Your task to perform on an android device: What's on my calendar today? Image 0: 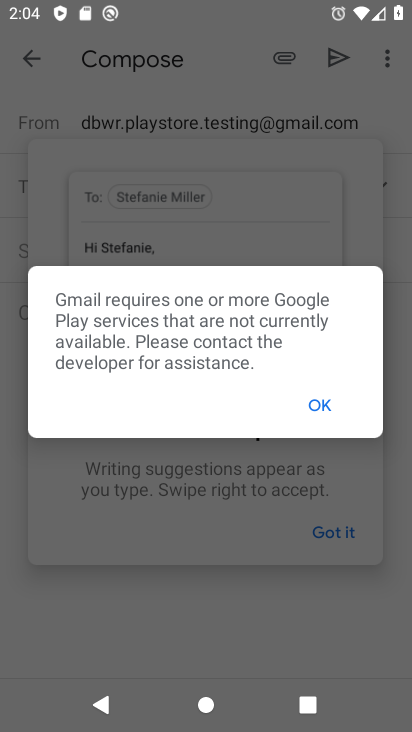
Step 0: press home button
Your task to perform on an android device: What's on my calendar today? Image 1: 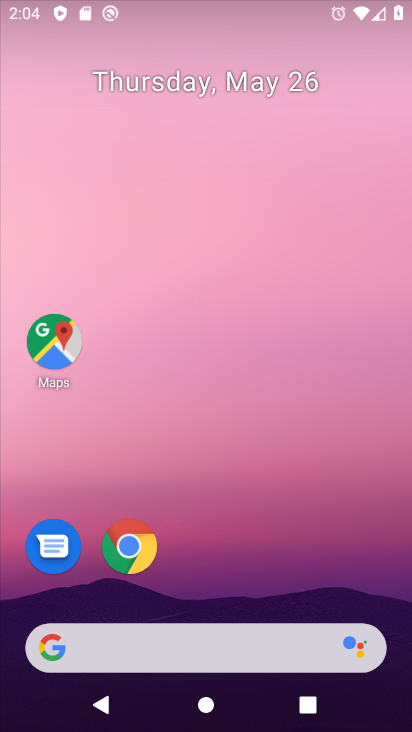
Step 1: drag from (290, 519) to (330, 53)
Your task to perform on an android device: What's on my calendar today? Image 2: 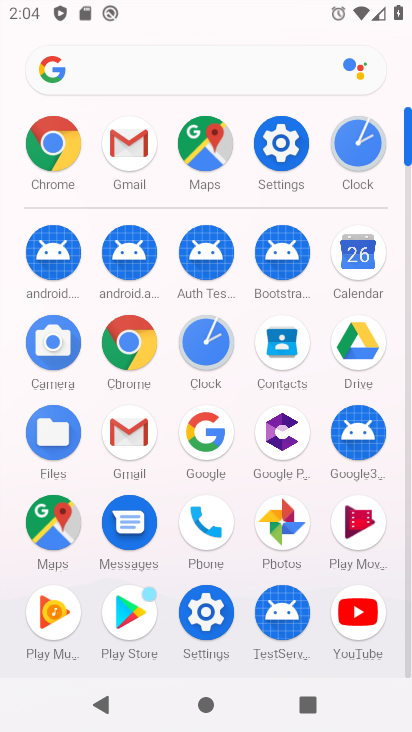
Step 2: click (355, 252)
Your task to perform on an android device: What's on my calendar today? Image 3: 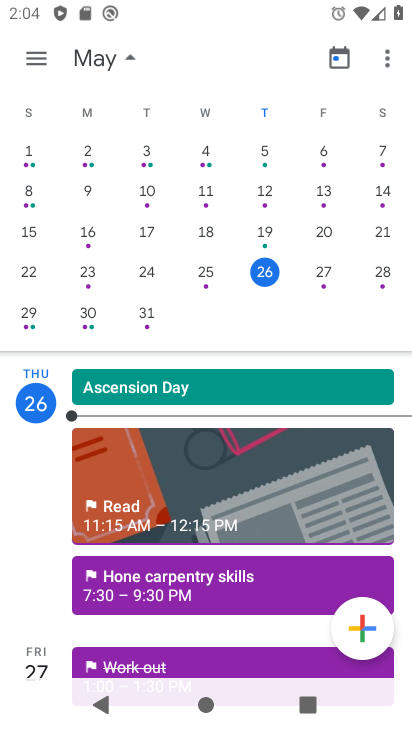
Step 3: click (263, 271)
Your task to perform on an android device: What's on my calendar today? Image 4: 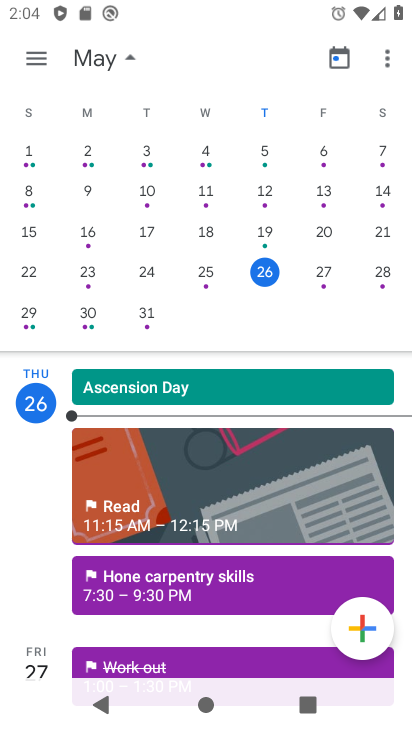
Step 4: task complete